Your task to perform on an android device: toggle notification dots Image 0: 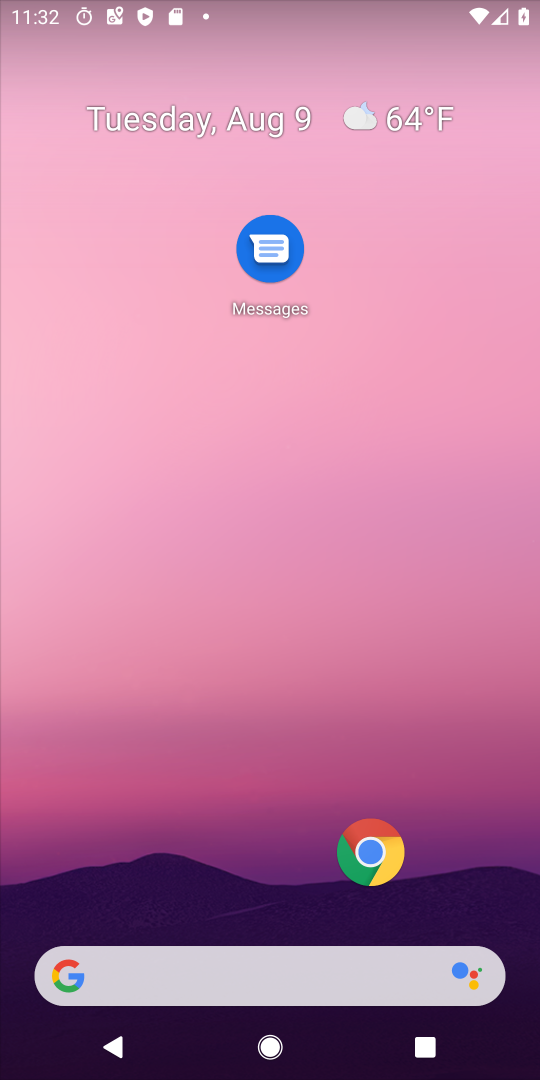
Step 0: drag from (229, 848) to (216, 135)
Your task to perform on an android device: toggle notification dots Image 1: 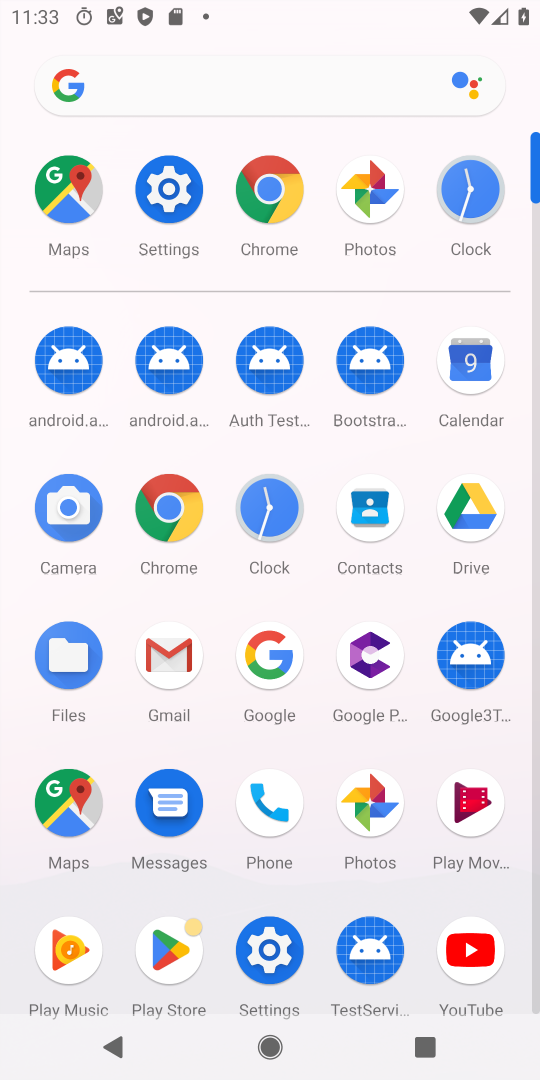
Step 1: click (167, 160)
Your task to perform on an android device: toggle notification dots Image 2: 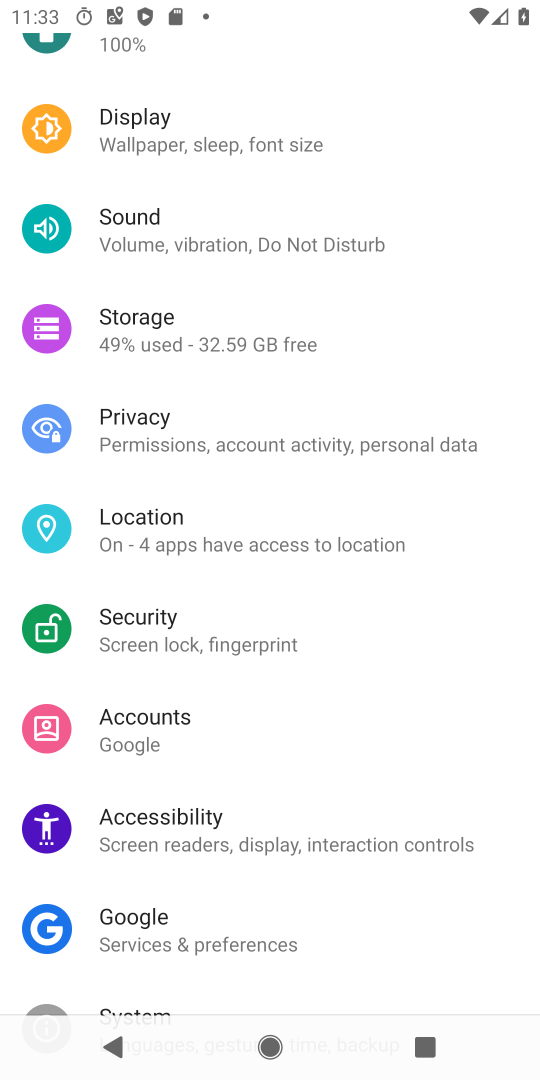
Step 2: drag from (167, 160) to (245, 669)
Your task to perform on an android device: toggle notification dots Image 3: 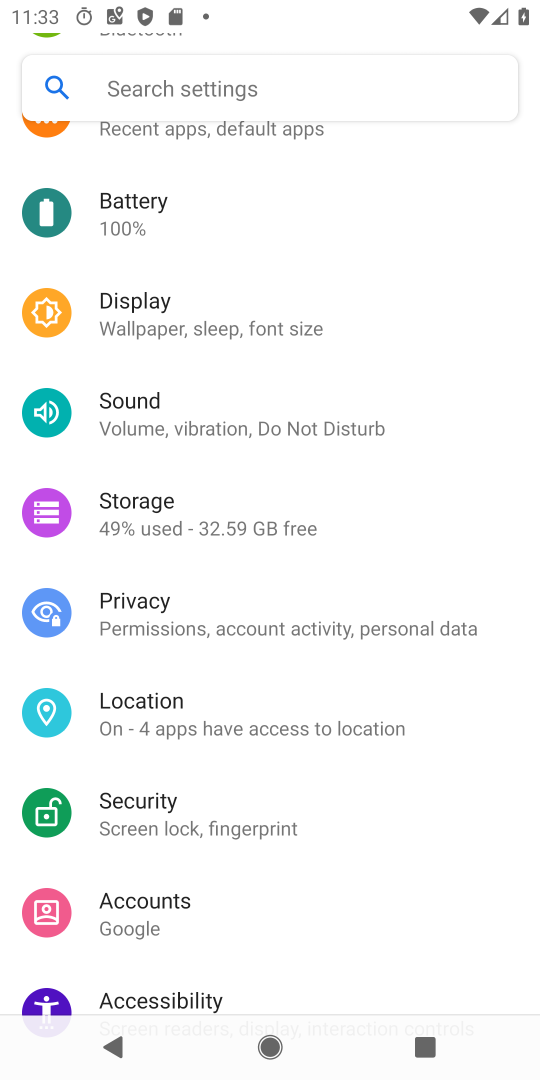
Step 3: drag from (343, 218) to (377, 755)
Your task to perform on an android device: toggle notification dots Image 4: 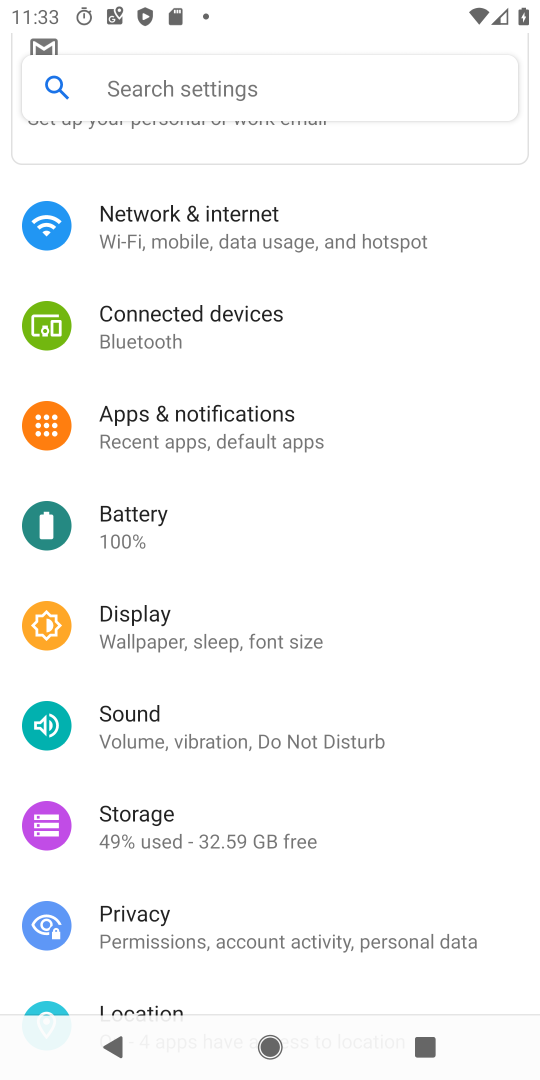
Step 4: click (193, 412)
Your task to perform on an android device: toggle notification dots Image 5: 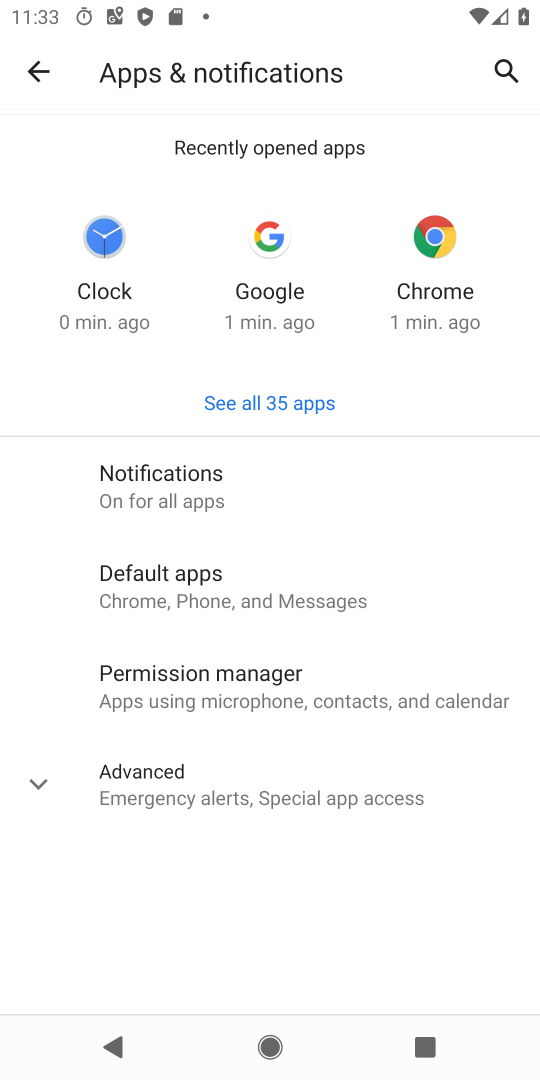
Step 5: click (215, 489)
Your task to perform on an android device: toggle notification dots Image 6: 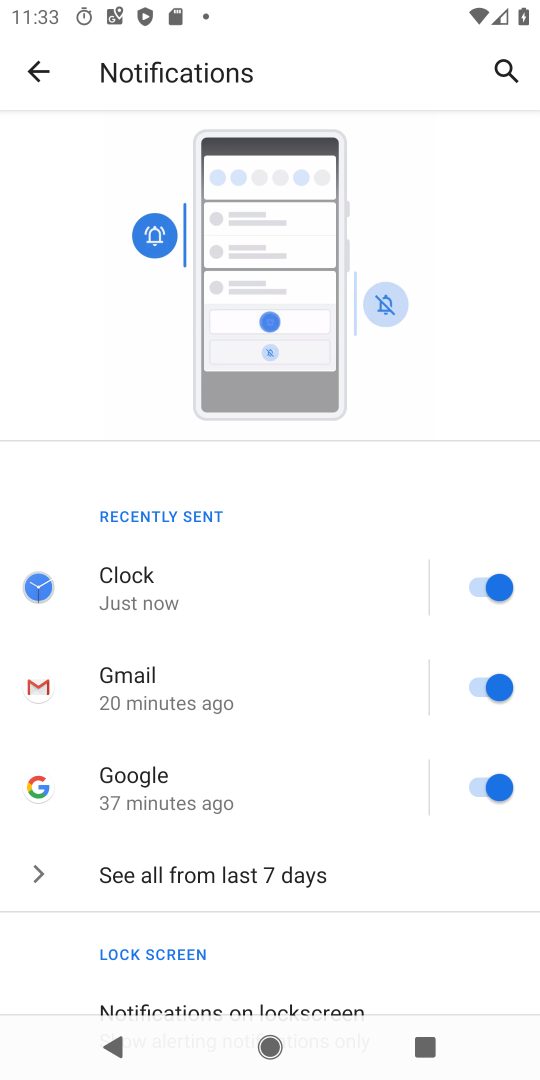
Step 6: drag from (229, 944) to (175, 324)
Your task to perform on an android device: toggle notification dots Image 7: 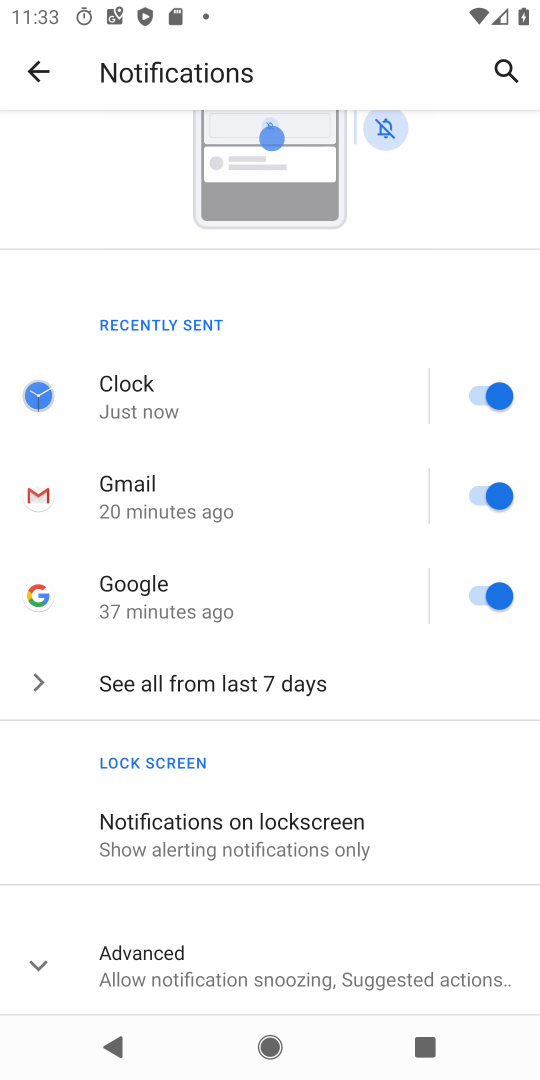
Step 7: click (178, 960)
Your task to perform on an android device: toggle notification dots Image 8: 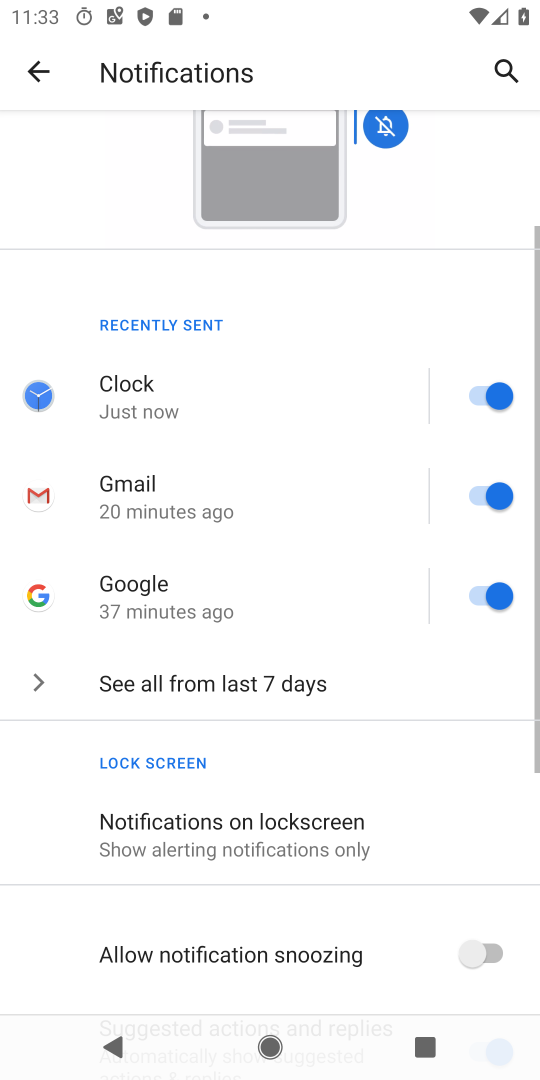
Step 8: drag from (178, 960) to (132, 313)
Your task to perform on an android device: toggle notification dots Image 9: 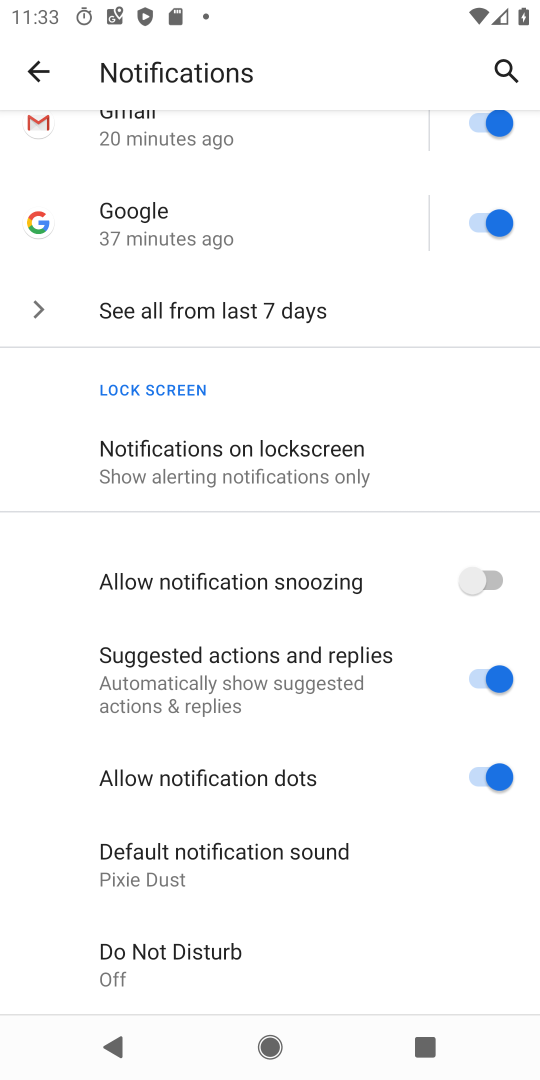
Step 9: click (494, 776)
Your task to perform on an android device: toggle notification dots Image 10: 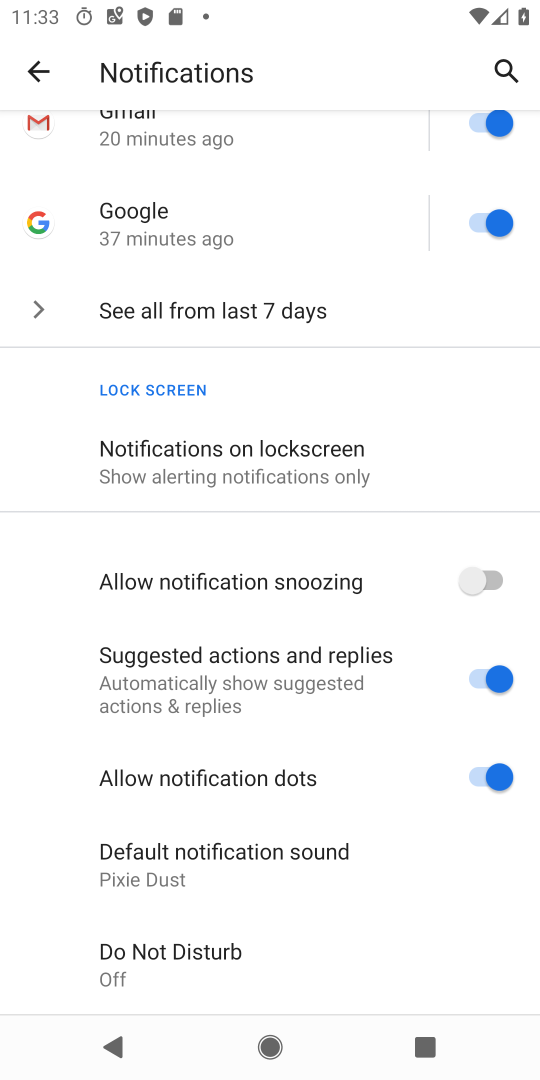
Step 10: click (494, 776)
Your task to perform on an android device: toggle notification dots Image 11: 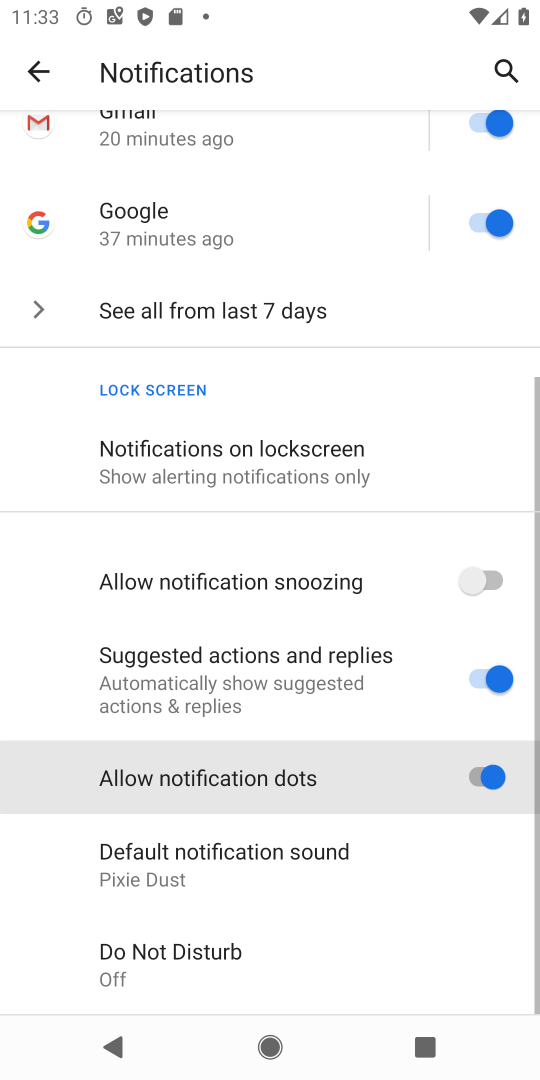
Step 11: click (494, 776)
Your task to perform on an android device: toggle notification dots Image 12: 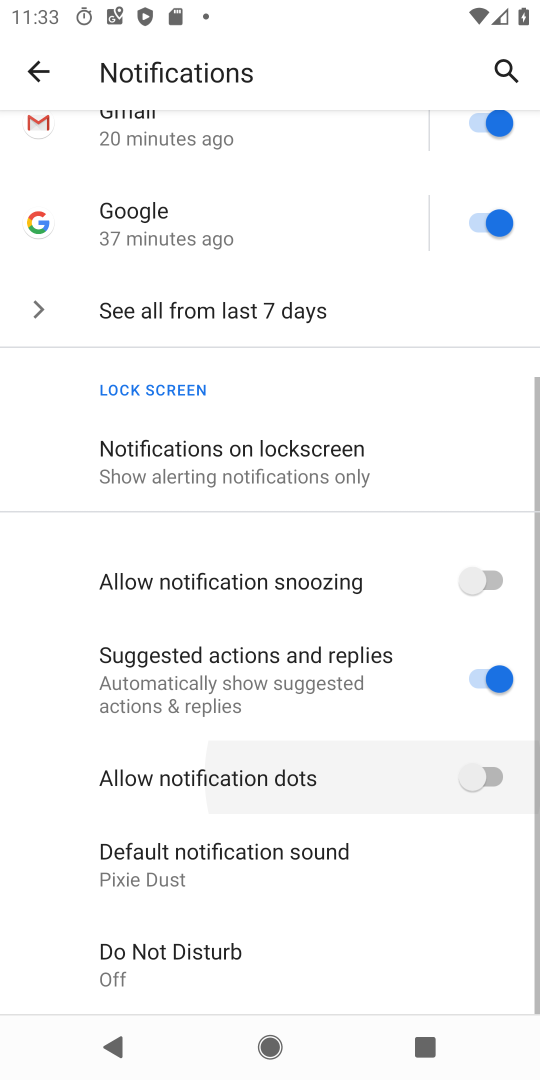
Step 12: click (494, 776)
Your task to perform on an android device: toggle notification dots Image 13: 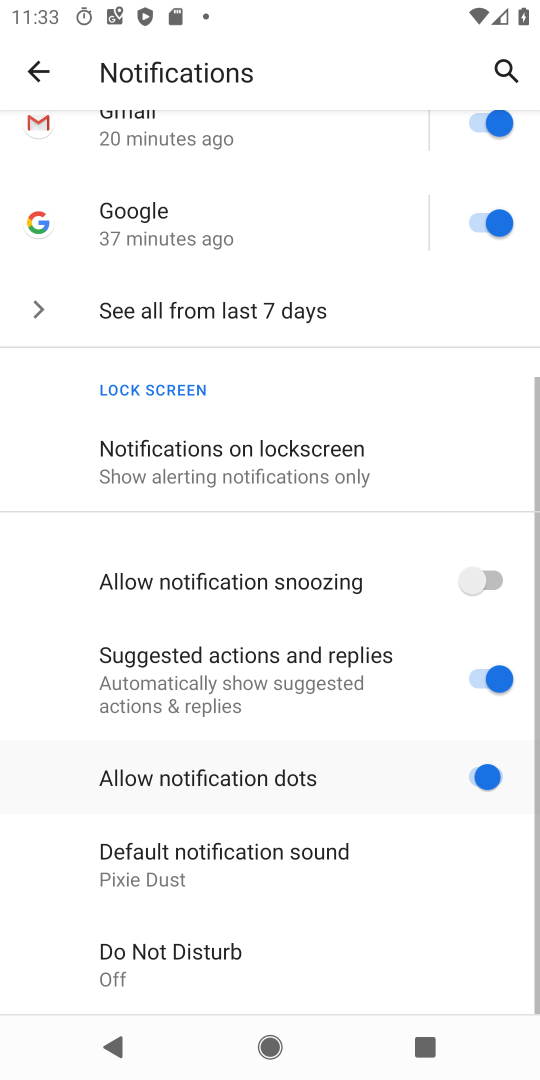
Step 13: click (494, 776)
Your task to perform on an android device: toggle notification dots Image 14: 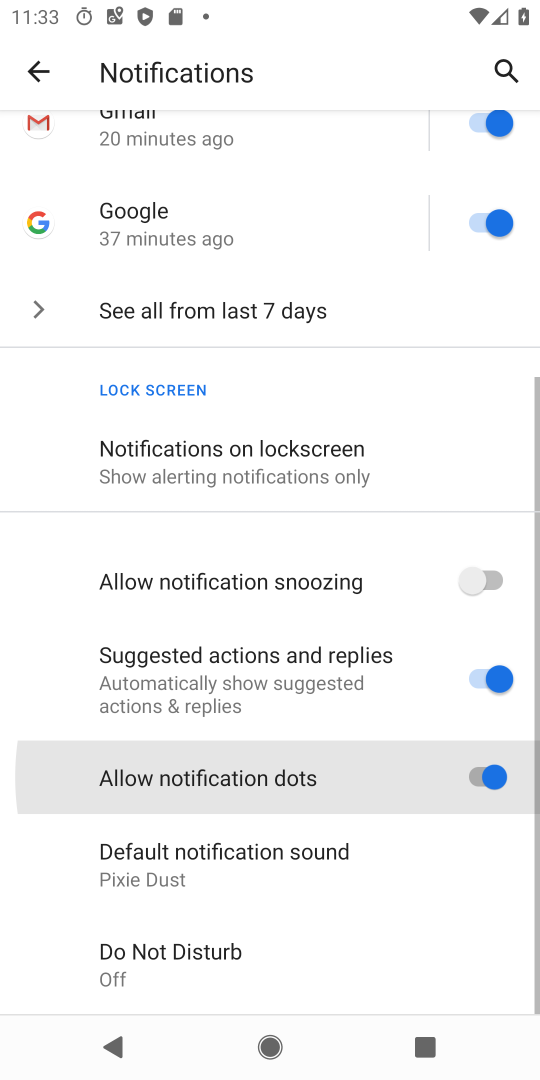
Step 14: click (494, 776)
Your task to perform on an android device: toggle notification dots Image 15: 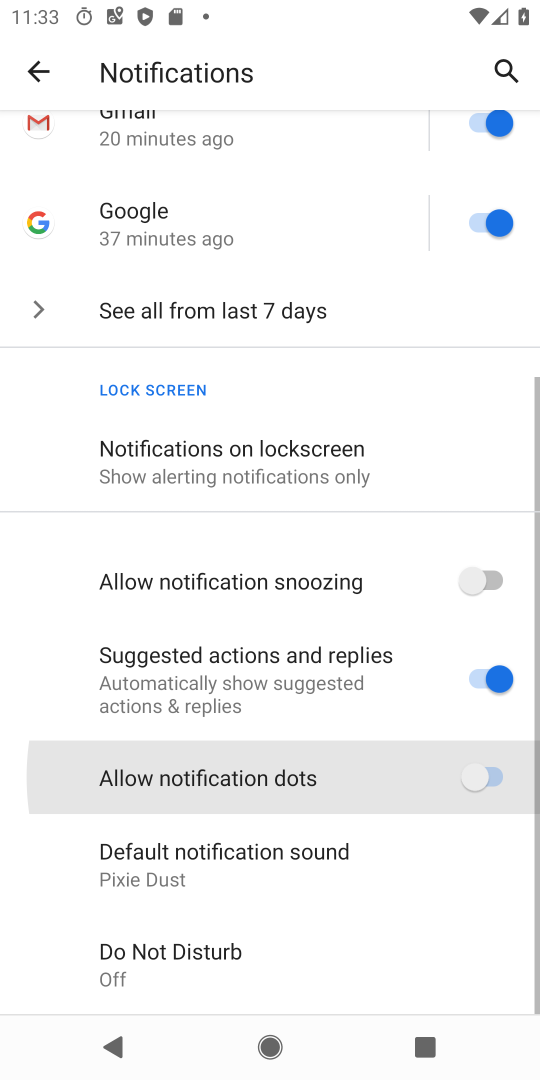
Step 15: click (494, 776)
Your task to perform on an android device: toggle notification dots Image 16: 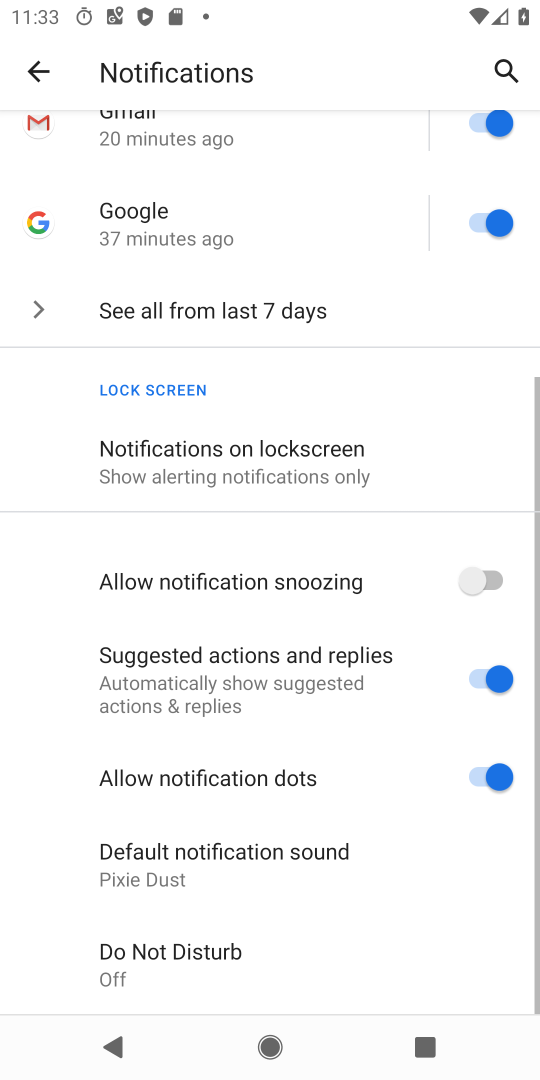
Step 16: click (494, 776)
Your task to perform on an android device: toggle notification dots Image 17: 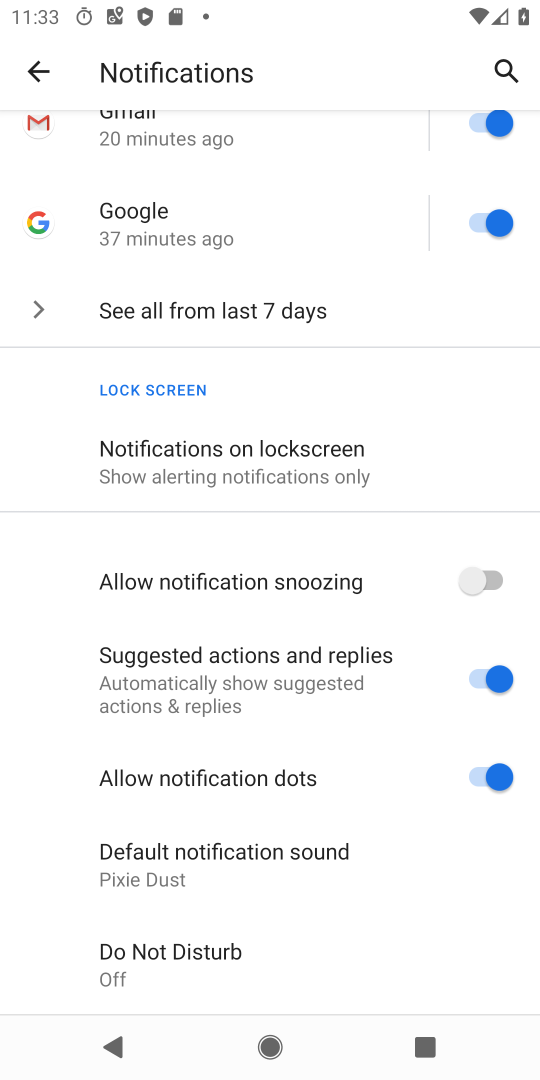
Step 17: task complete